Your task to perform on an android device: turn off notifications settings in the gmail app Image 0: 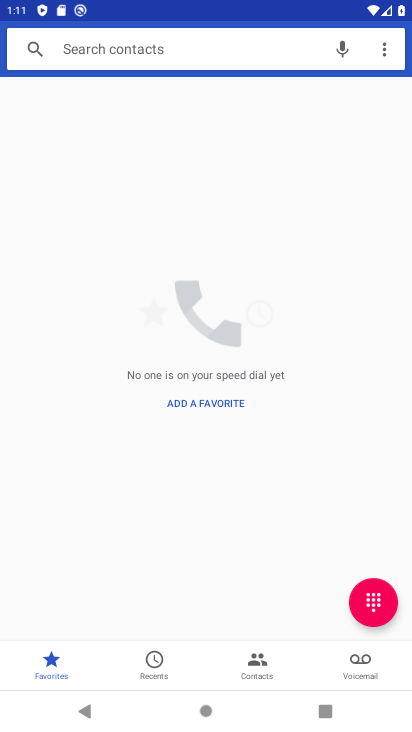
Step 0: press home button
Your task to perform on an android device: turn off notifications settings in the gmail app Image 1: 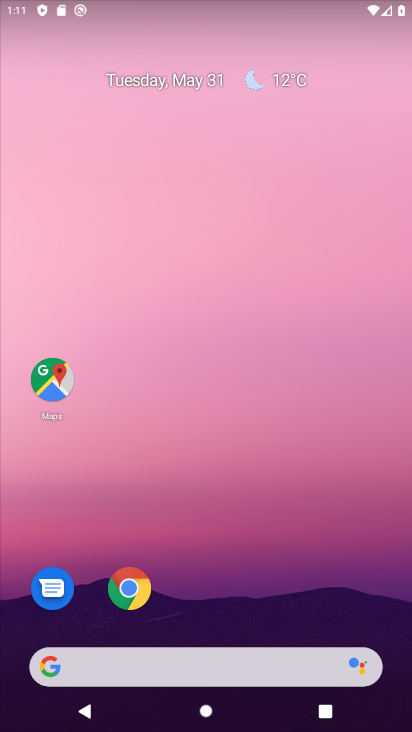
Step 1: drag from (398, 686) to (373, 163)
Your task to perform on an android device: turn off notifications settings in the gmail app Image 2: 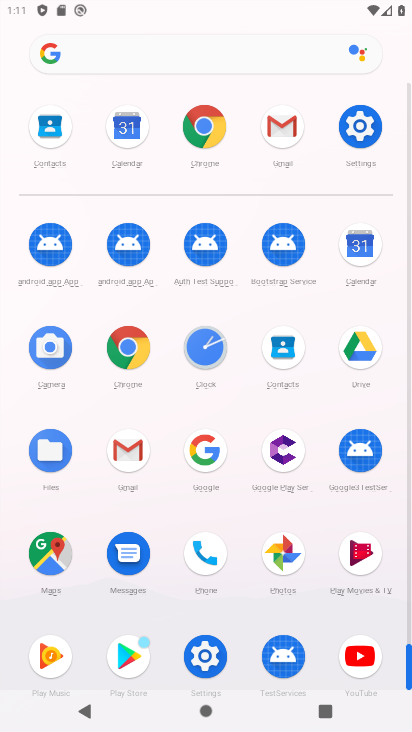
Step 2: click (131, 453)
Your task to perform on an android device: turn off notifications settings in the gmail app Image 3: 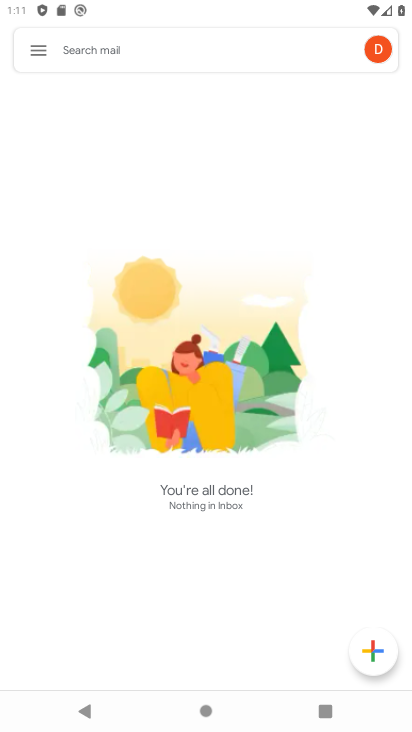
Step 3: click (27, 50)
Your task to perform on an android device: turn off notifications settings in the gmail app Image 4: 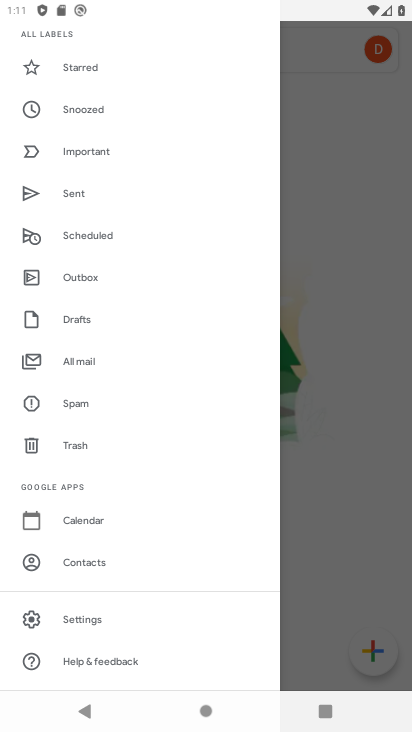
Step 4: click (87, 615)
Your task to perform on an android device: turn off notifications settings in the gmail app Image 5: 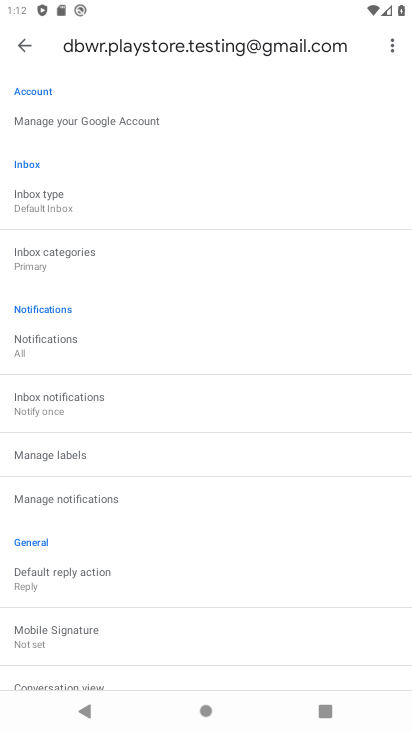
Step 5: click (19, 50)
Your task to perform on an android device: turn off notifications settings in the gmail app Image 6: 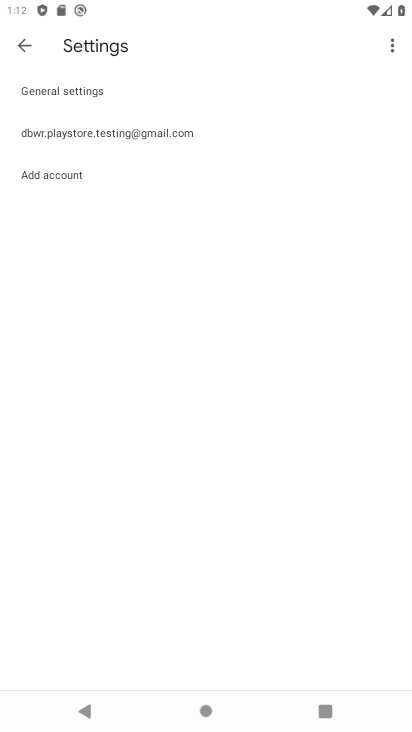
Step 6: click (70, 85)
Your task to perform on an android device: turn off notifications settings in the gmail app Image 7: 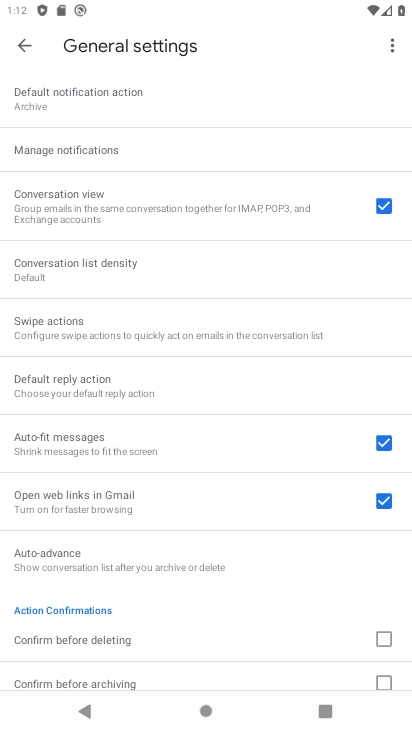
Step 7: click (49, 150)
Your task to perform on an android device: turn off notifications settings in the gmail app Image 8: 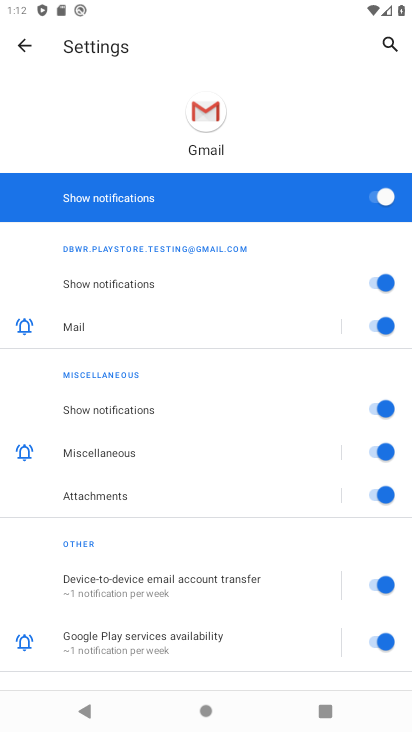
Step 8: click (372, 196)
Your task to perform on an android device: turn off notifications settings in the gmail app Image 9: 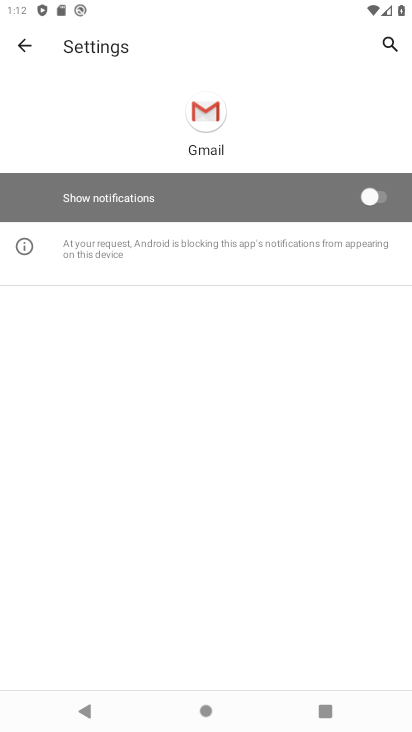
Step 9: task complete